Your task to perform on an android device: Check the weather Image 0: 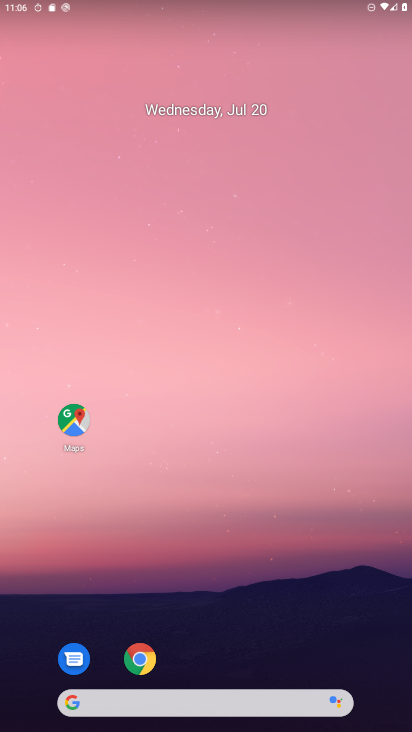
Step 0: drag from (268, 474) to (238, 0)
Your task to perform on an android device: Check the weather Image 1: 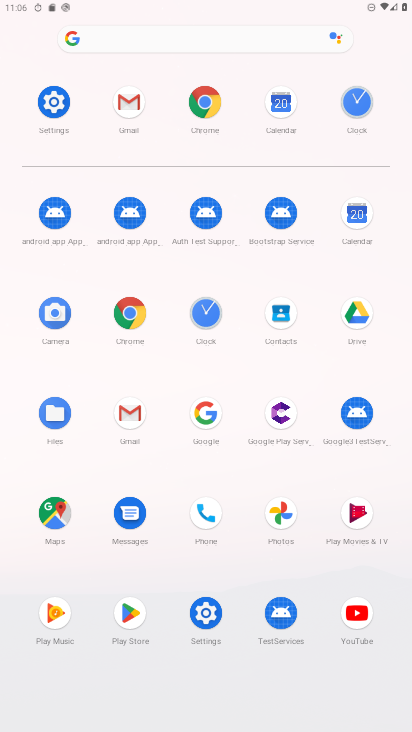
Step 1: click (205, 105)
Your task to perform on an android device: Check the weather Image 2: 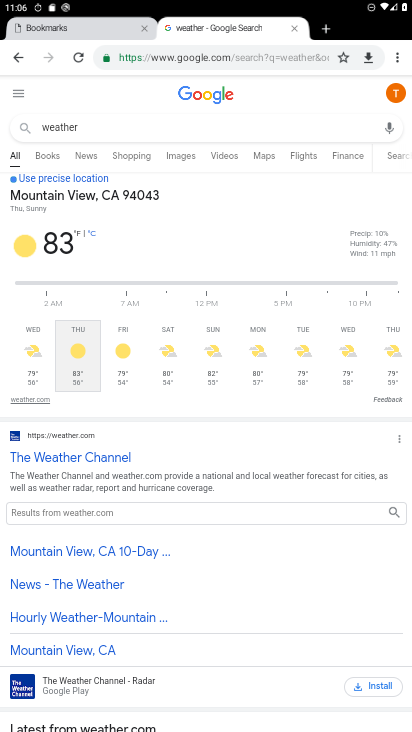
Step 2: task complete